Your task to perform on an android device: Open privacy settings Image 0: 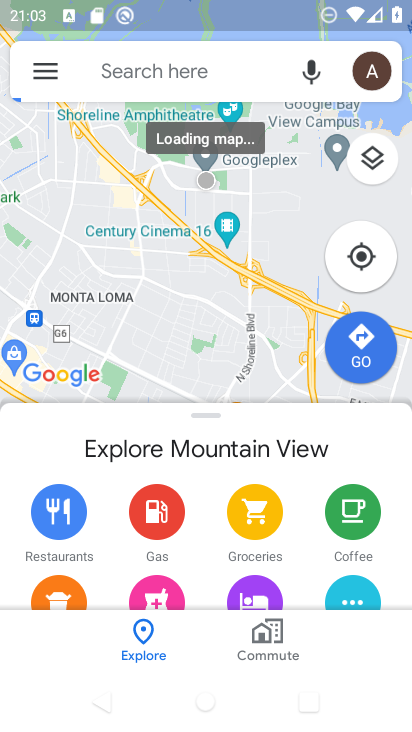
Step 0: press home button
Your task to perform on an android device: Open privacy settings Image 1: 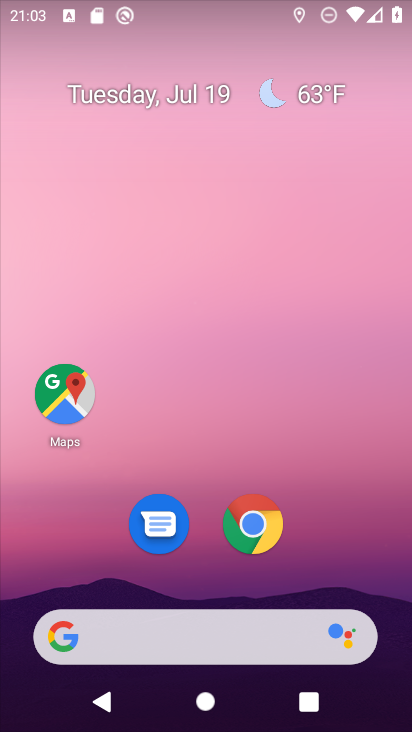
Step 1: drag from (345, 538) to (279, 34)
Your task to perform on an android device: Open privacy settings Image 2: 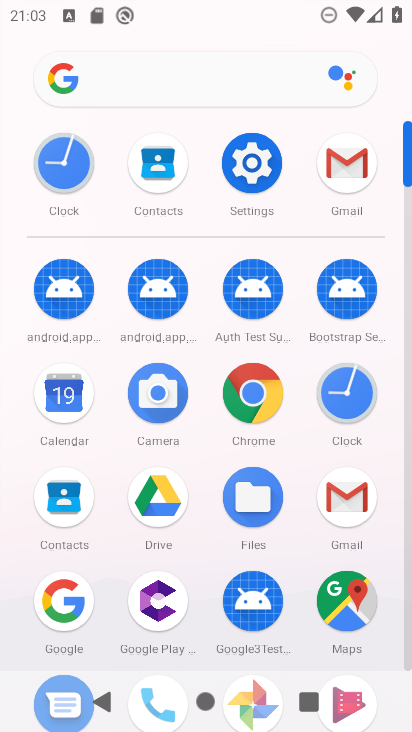
Step 2: click (250, 162)
Your task to perform on an android device: Open privacy settings Image 3: 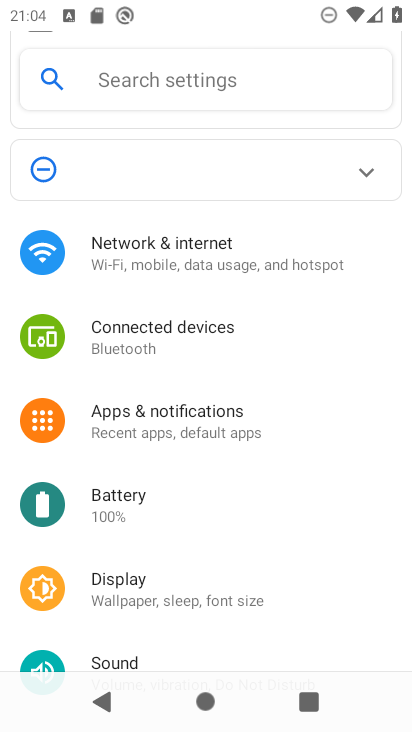
Step 3: drag from (220, 543) to (169, 165)
Your task to perform on an android device: Open privacy settings Image 4: 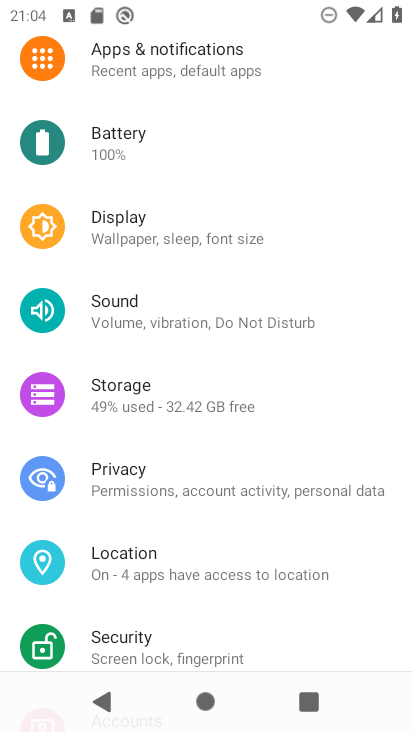
Step 4: click (224, 481)
Your task to perform on an android device: Open privacy settings Image 5: 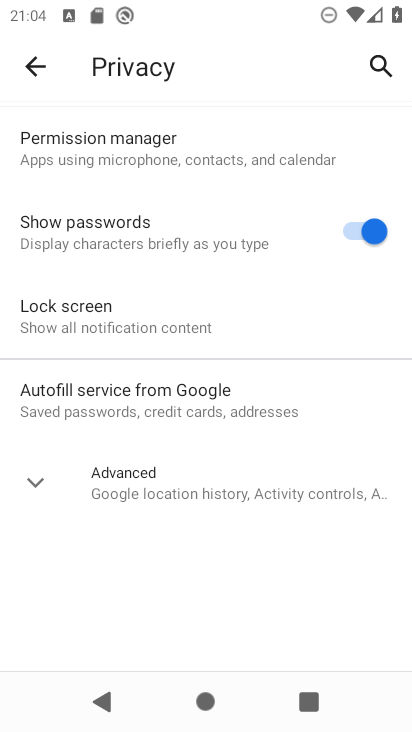
Step 5: click (38, 474)
Your task to perform on an android device: Open privacy settings Image 6: 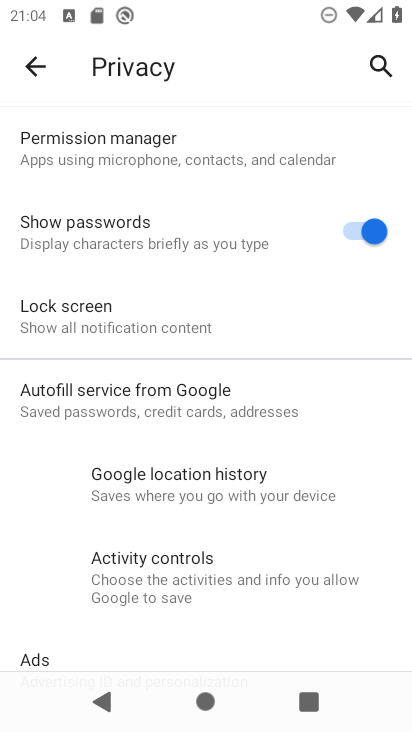
Step 6: task complete